Your task to perform on an android device: open a bookmark in the chrome app Image 0: 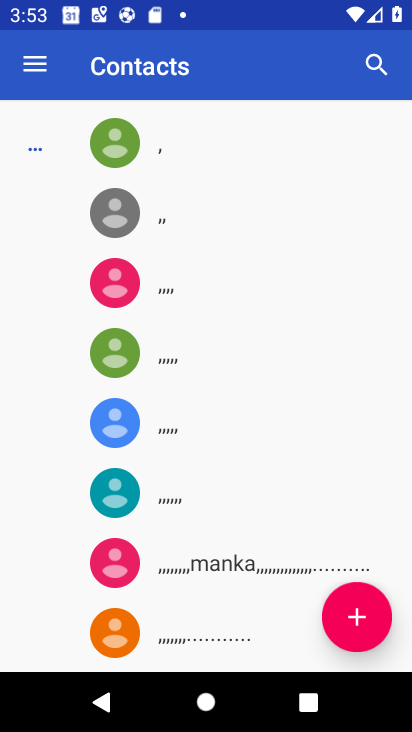
Step 0: press home button
Your task to perform on an android device: open a bookmark in the chrome app Image 1: 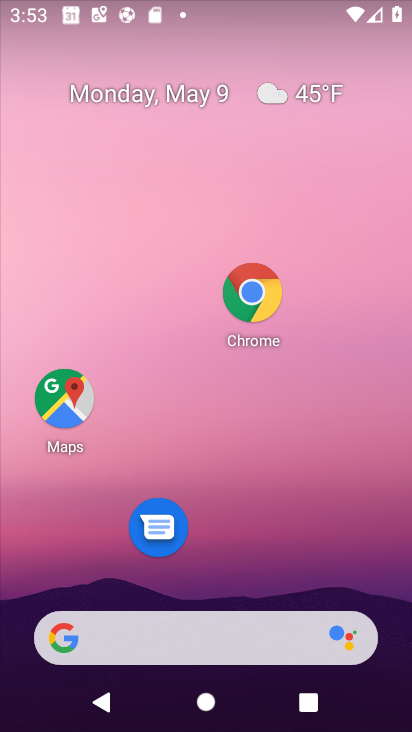
Step 1: click (255, 320)
Your task to perform on an android device: open a bookmark in the chrome app Image 2: 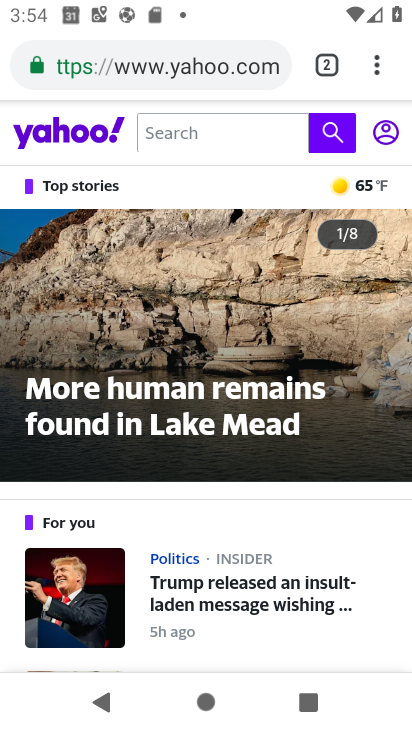
Step 2: click (374, 62)
Your task to perform on an android device: open a bookmark in the chrome app Image 3: 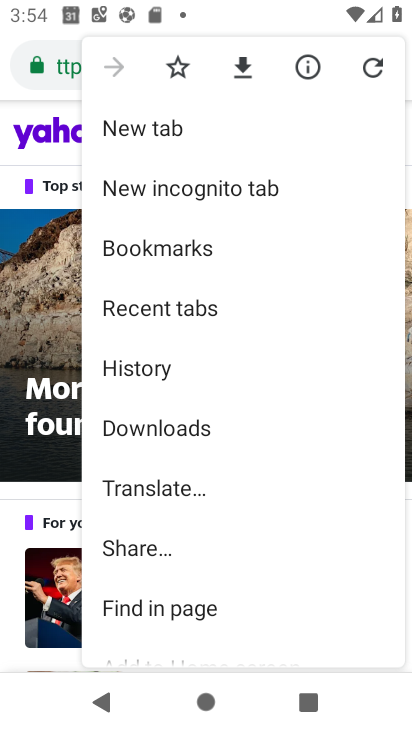
Step 3: click (219, 255)
Your task to perform on an android device: open a bookmark in the chrome app Image 4: 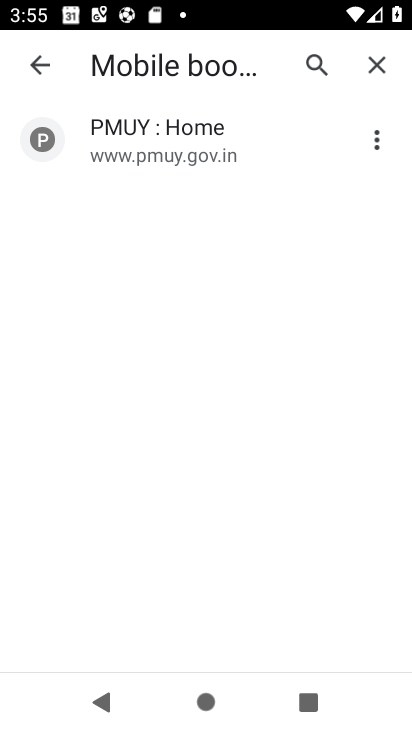
Step 4: click (203, 167)
Your task to perform on an android device: open a bookmark in the chrome app Image 5: 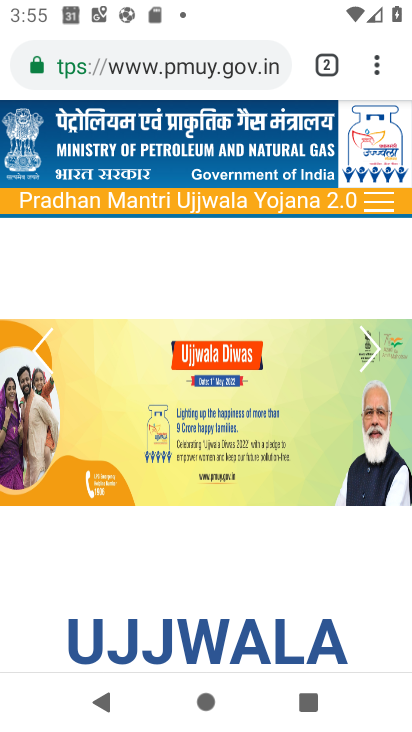
Step 5: task complete